Your task to perform on an android device: turn on improve location accuracy Image 0: 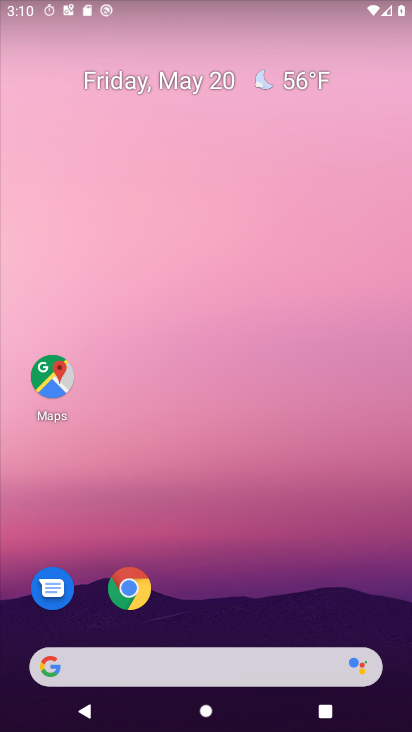
Step 0: drag from (19, 586) to (239, 128)
Your task to perform on an android device: turn on improve location accuracy Image 1: 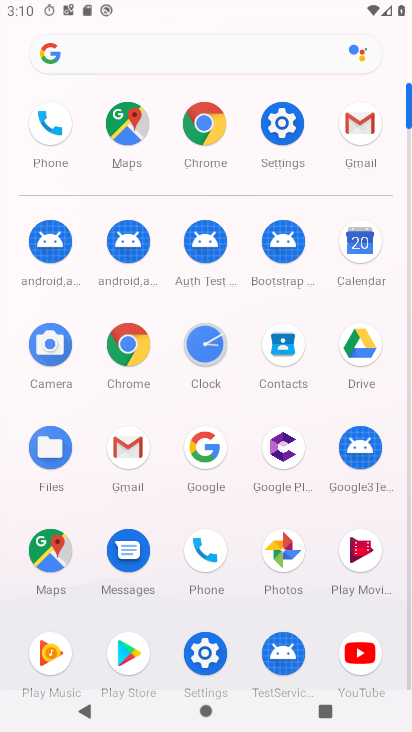
Step 1: click (279, 138)
Your task to perform on an android device: turn on improve location accuracy Image 2: 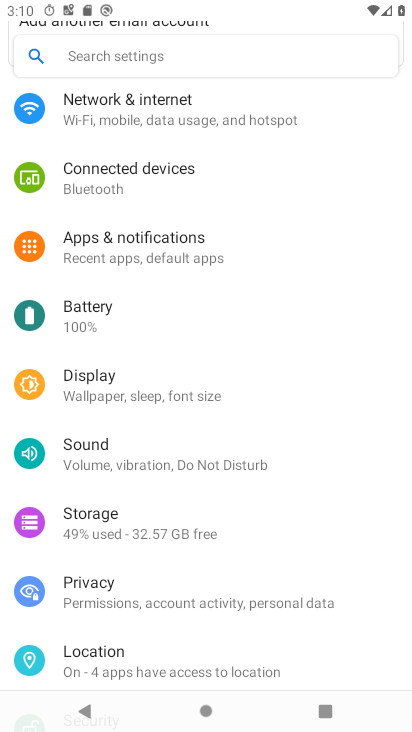
Step 2: click (146, 657)
Your task to perform on an android device: turn on improve location accuracy Image 3: 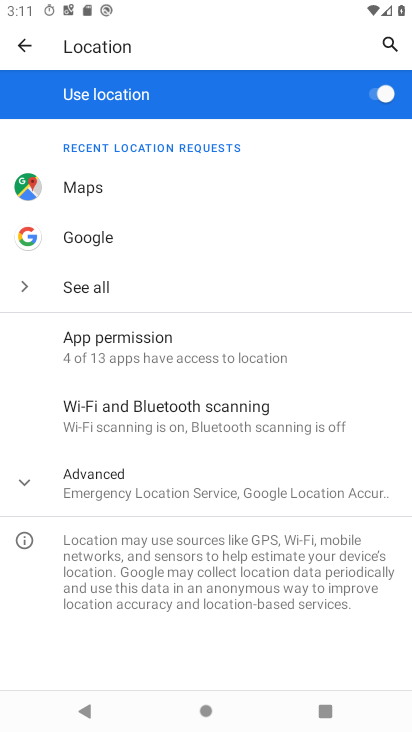
Step 3: click (228, 480)
Your task to perform on an android device: turn on improve location accuracy Image 4: 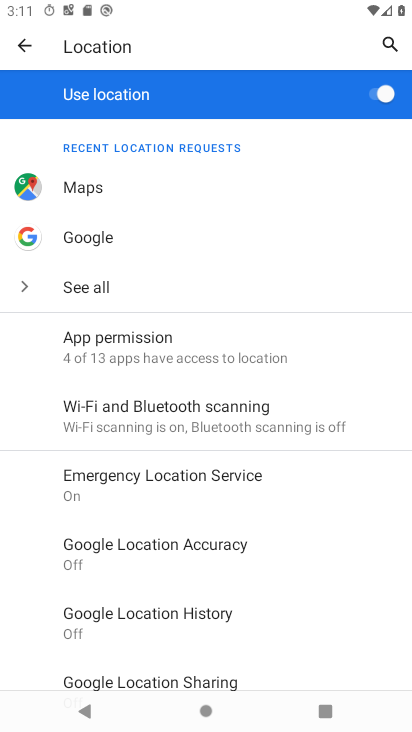
Step 4: click (194, 551)
Your task to perform on an android device: turn on improve location accuracy Image 5: 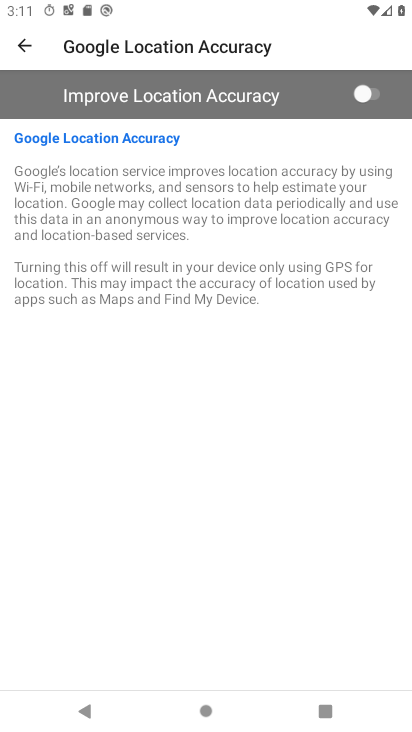
Step 5: click (354, 96)
Your task to perform on an android device: turn on improve location accuracy Image 6: 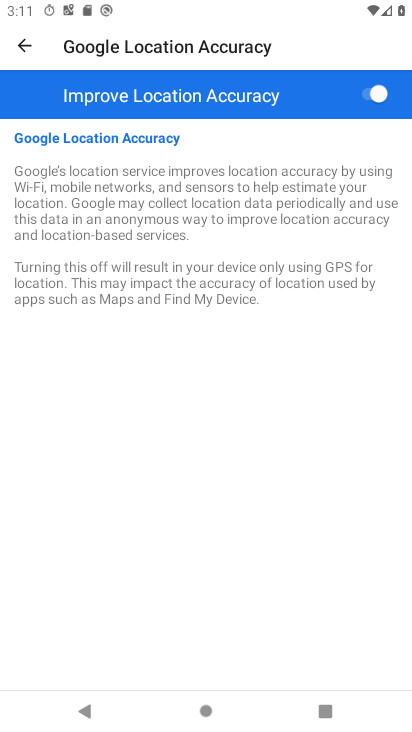
Step 6: task complete